Your task to perform on an android device: turn off notifications settings in the gmail app Image 0: 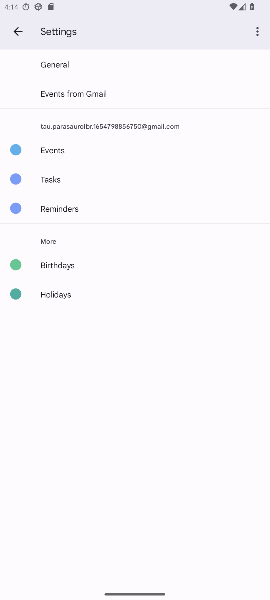
Step 0: press home button
Your task to perform on an android device: turn off notifications settings in the gmail app Image 1: 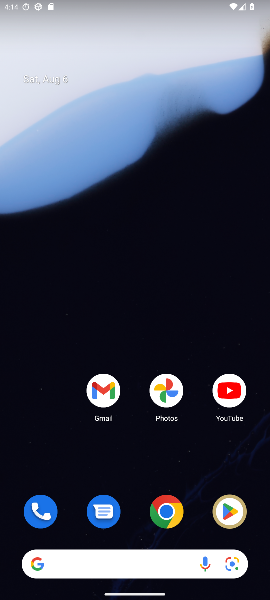
Step 1: click (104, 390)
Your task to perform on an android device: turn off notifications settings in the gmail app Image 2: 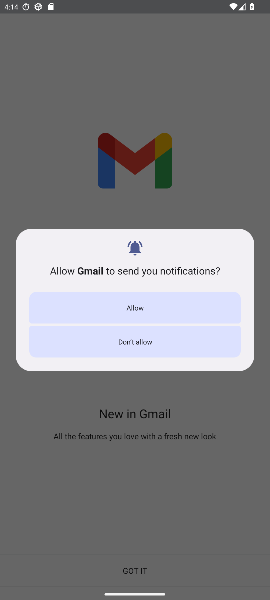
Step 2: click (144, 308)
Your task to perform on an android device: turn off notifications settings in the gmail app Image 3: 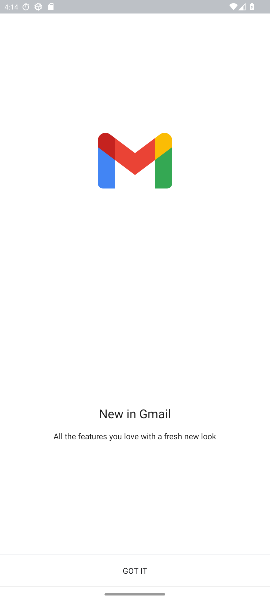
Step 3: click (151, 574)
Your task to perform on an android device: turn off notifications settings in the gmail app Image 4: 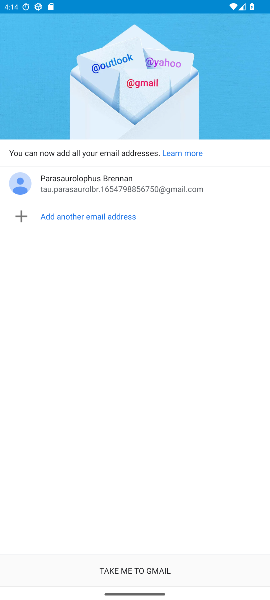
Step 4: click (151, 574)
Your task to perform on an android device: turn off notifications settings in the gmail app Image 5: 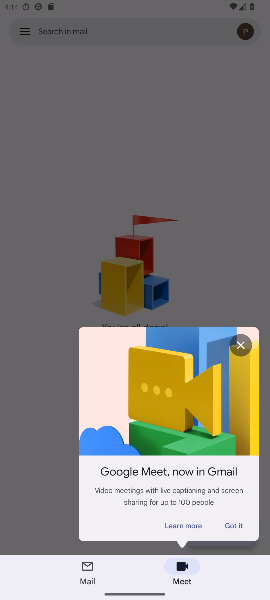
Step 5: click (246, 343)
Your task to perform on an android device: turn off notifications settings in the gmail app Image 6: 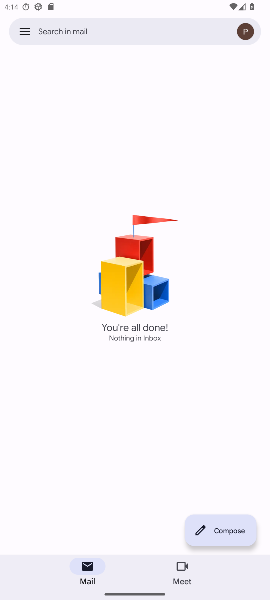
Step 6: click (25, 39)
Your task to perform on an android device: turn off notifications settings in the gmail app Image 7: 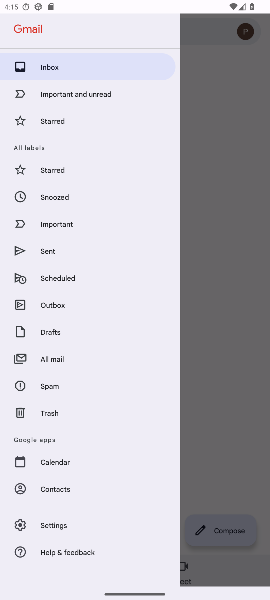
Step 7: click (48, 531)
Your task to perform on an android device: turn off notifications settings in the gmail app Image 8: 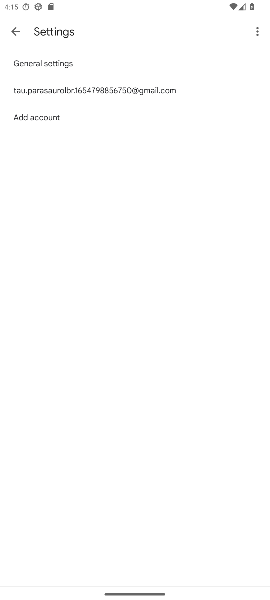
Step 8: click (61, 66)
Your task to perform on an android device: turn off notifications settings in the gmail app Image 9: 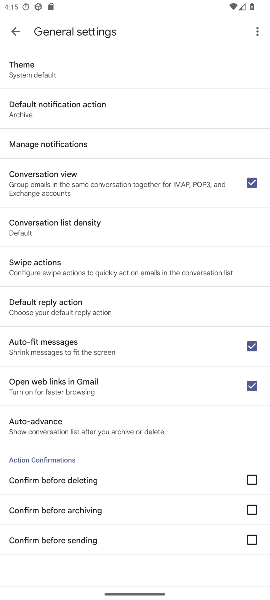
Step 9: click (87, 150)
Your task to perform on an android device: turn off notifications settings in the gmail app Image 10: 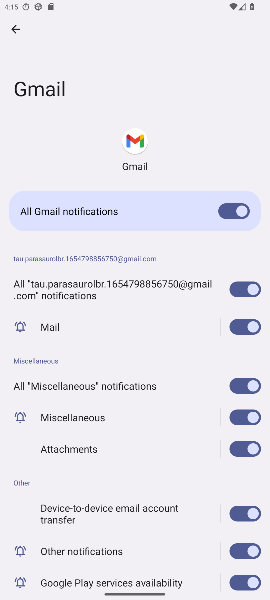
Step 10: click (218, 214)
Your task to perform on an android device: turn off notifications settings in the gmail app Image 11: 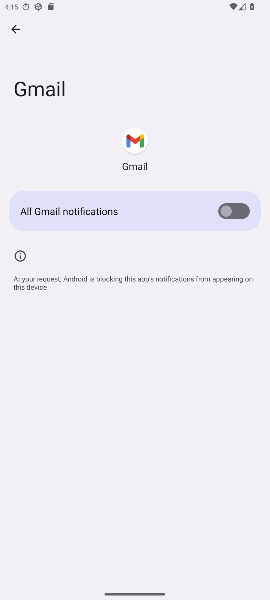
Step 11: task complete